Your task to perform on an android device: Show the shopping cart on newegg.com. Search for lenovo thinkpad on newegg.com, select the first entry, add it to the cart, then select checkout. Image 0: 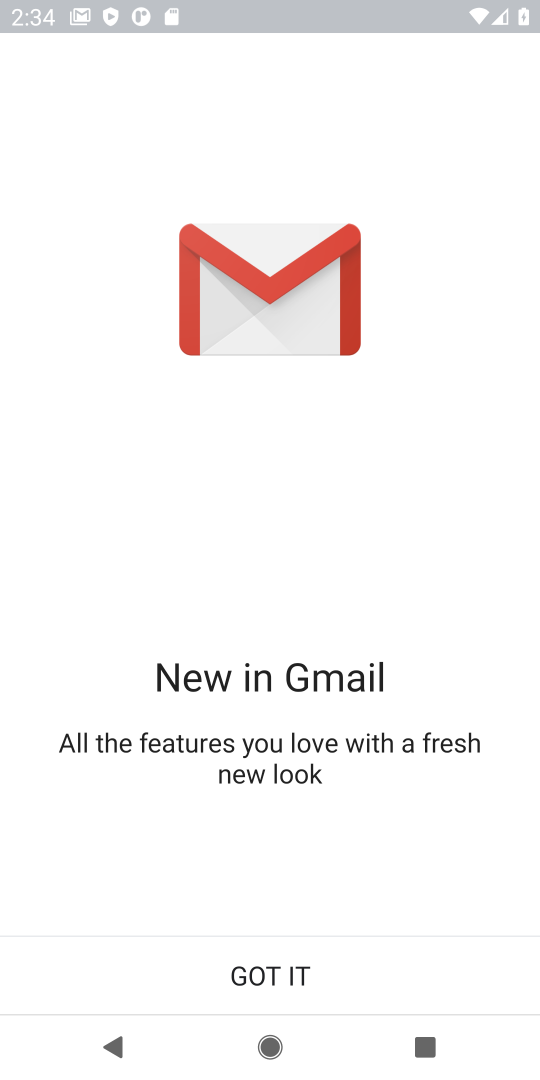
Step 0: press home button
Your task to perform on an android device: Show the shopping cart on newegg.com. Search for lenovo thinkpad on newegg.com, select the first entry, add it to the cart, then select checkout. Image 1: 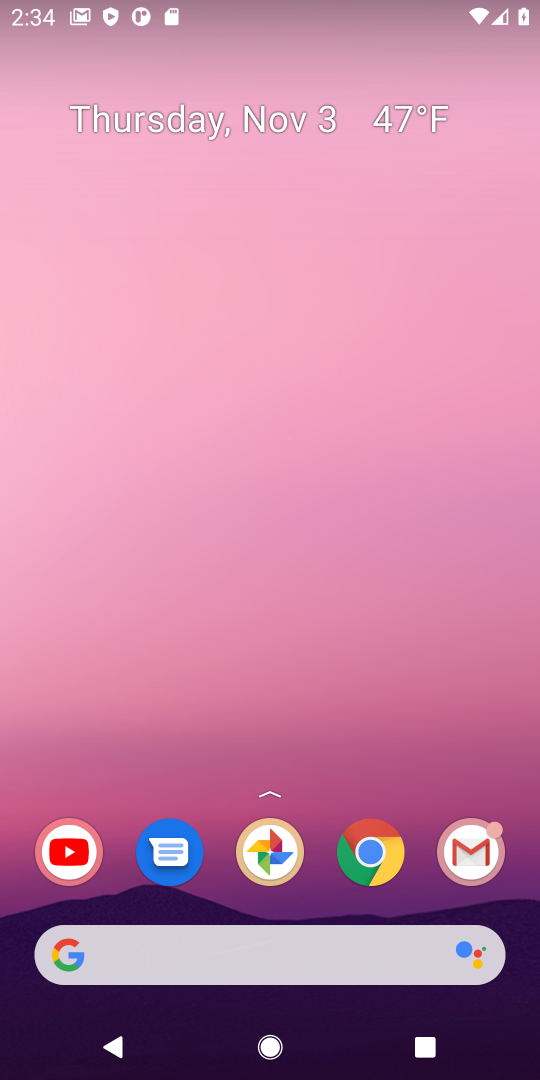
Step 1: click (371, 855)
Your task to perform on an android device: Show the shopping cart on newegg.com. Search for lenovo thinkpad on newegg.com, select the first entry, add it to the cart, then select checkout. Image 2: 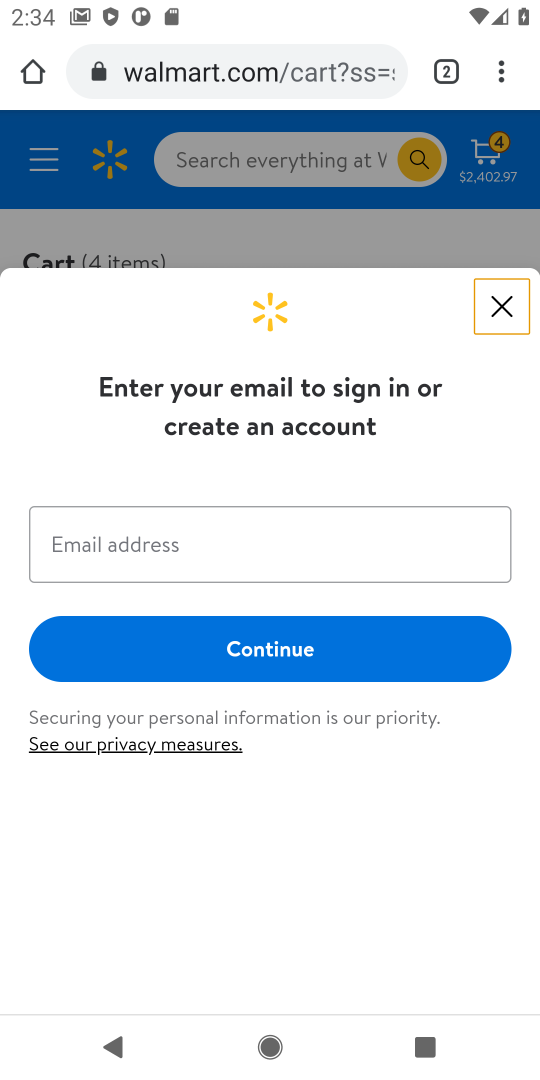
Step 2: click (160, 68)
Your task to perform on an android device: Show the shopping cart on newegg.com. Search for lenovo thinkpad on newegg.com, select the first entry, add it to the cart, then select checkout. Image 3: 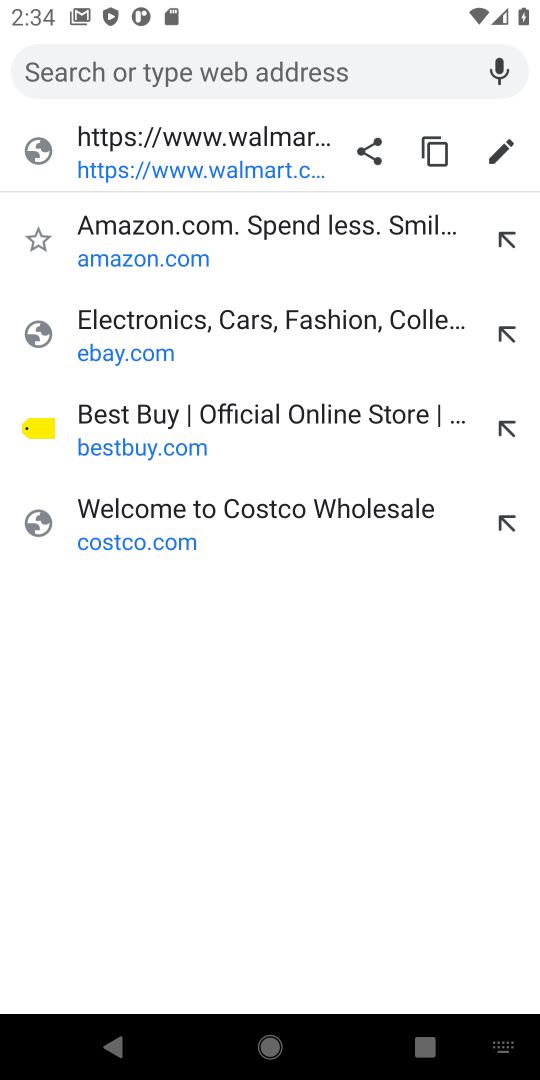
Step 3: type "newegg.com"
Your task to perform on an android device: Show the shopping cart on newegg.com. Search for lenovo thinkpad on newegg.com, select the first entry, add it to the cart, then select checkout. Image 4: 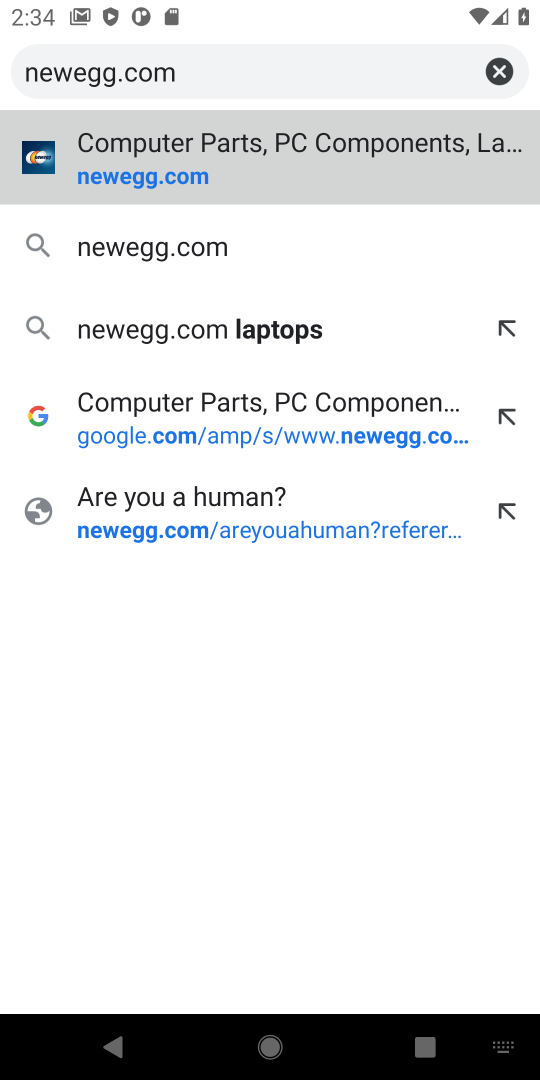
Step 4: click (172, 256)
Your task to perform on an android device: Show the shopping cart on newegg.com. Search for lenovo thinkpad on newegg.com, select the first entry, add it to the cart, then select checkout. Image 5: 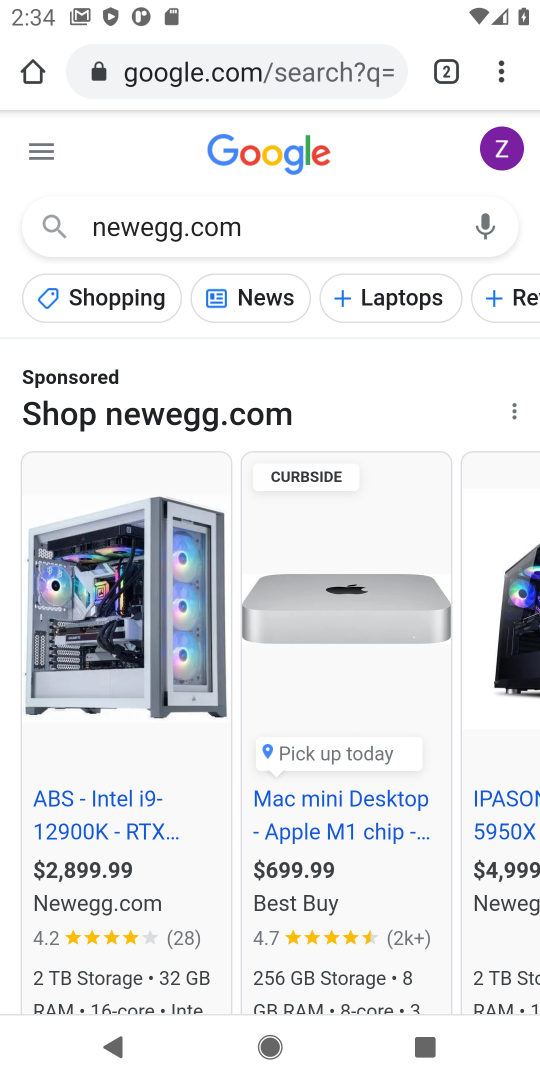
Step 5: drag from (260, 834) to (235, 324)
Your task to perform on an android device: Show the shopping cart on newegg.com. Search for lenovo thinkpad on newegg.com, select the first entry, add it to the cart, then select checkout. Image 6: 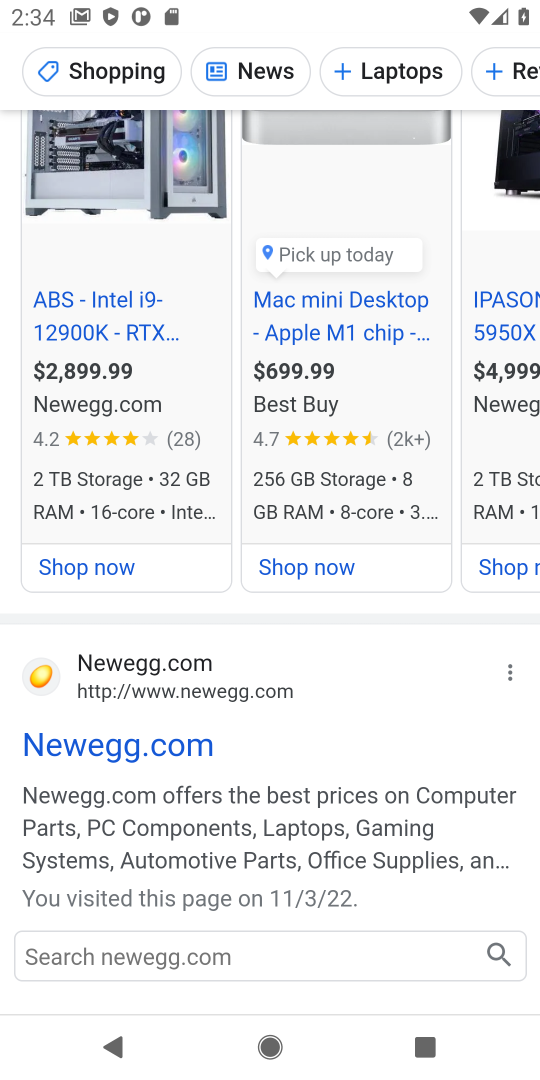
Step 6: click (111, 691)
Your task to perform on an android device: Show the shopping cart on newegg.com. Search for lenovo thinkpad on newegg.com, select the first entry, add it to the cart, then select checkout. Image 7: 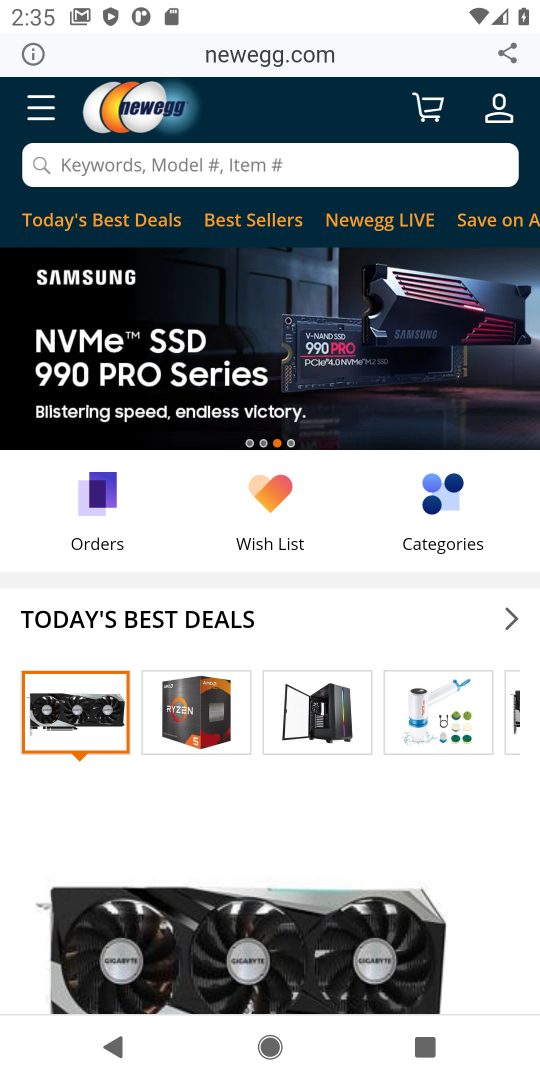
Step 7: click (430, 113)
Your task to perform on an android device: Show the shopping cart on newegg.com. Search for lenovo thinkpad on newegg.com, select the first entry, add it to the cart, then select checkout. Image 8: 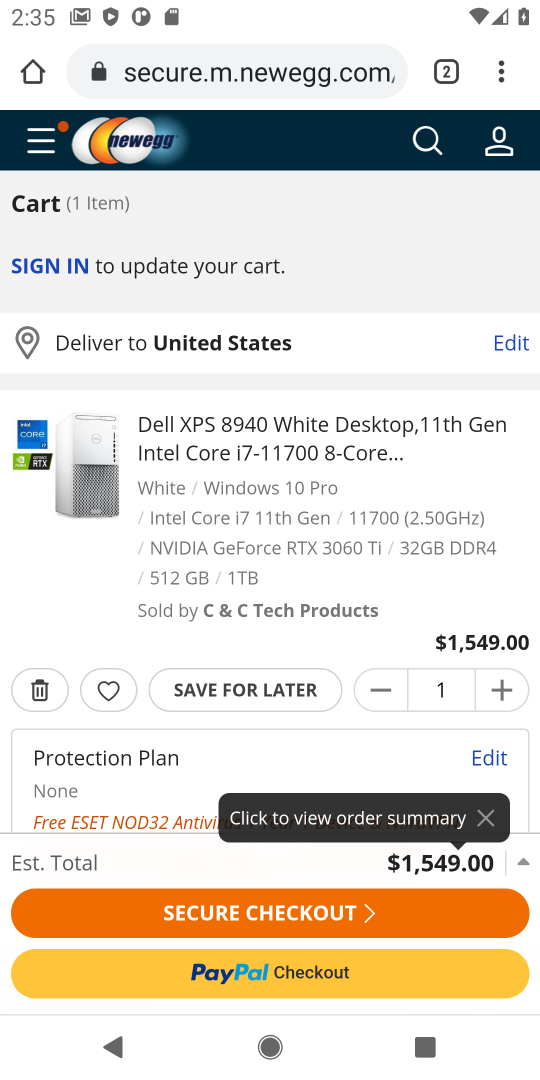
Step 8: click (435, 141)
Your task to perform on an android device: Show the shopping cart on newegg.com. Search for lenovo thinkpad on newegg.com, select the first entry, add it to the cart, then select checkout. Image 9: 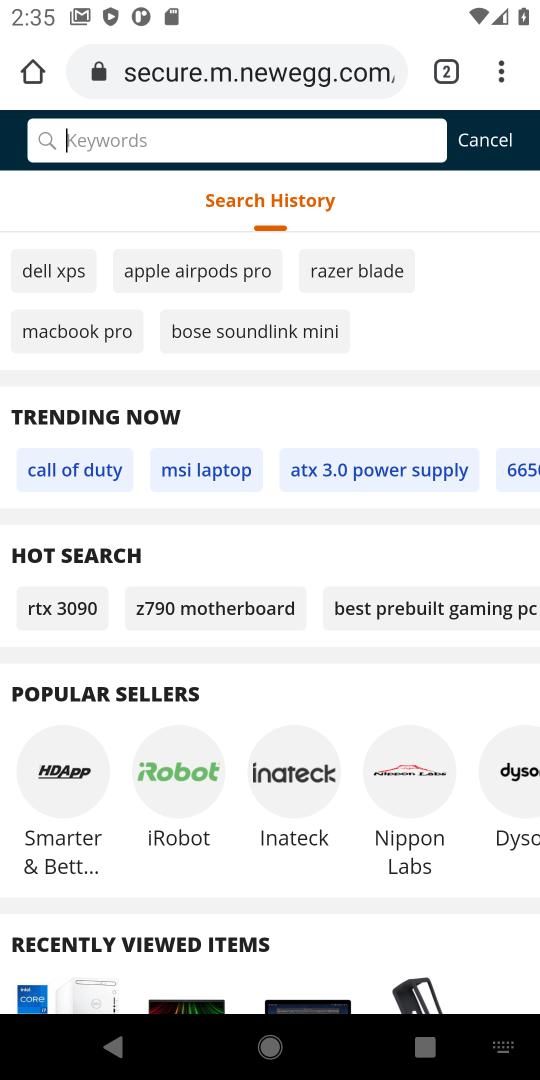
Step 9: type "lenovo thinkpad"
Your task to perform on an android device: Show the shopping cart on newegg.com. Search for lenovo thinkpad on newegg.com, select the first entry, add it to the cart, then select checkout. Image 10: 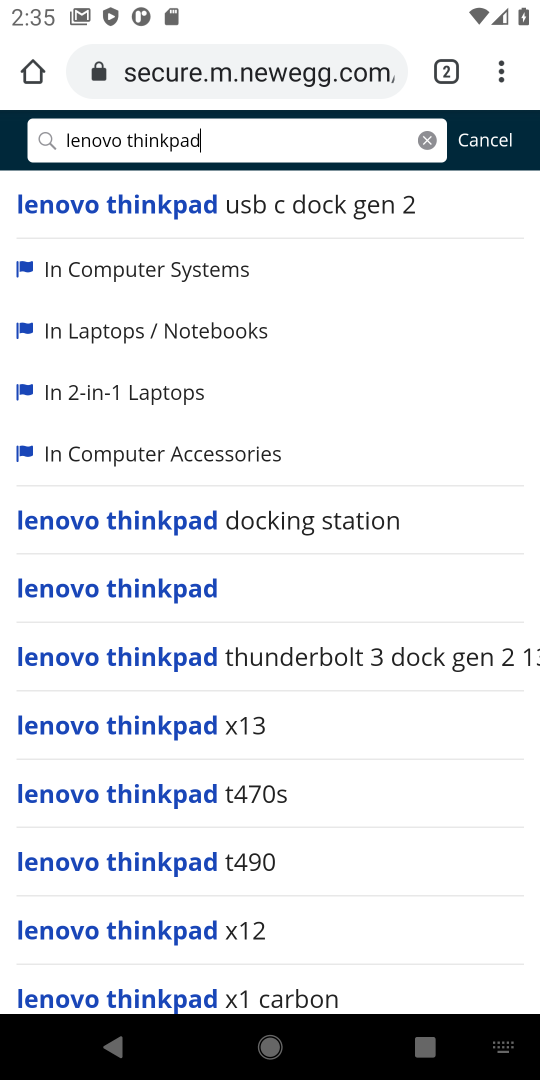
Step 10: click (143, 593)
Your task to perform on an android device: Show the shopping cart on newegg.com. Search for lenovo thinkpad on newegg.com, select the first entry, add it to the cart, then select checkout. Image 11: 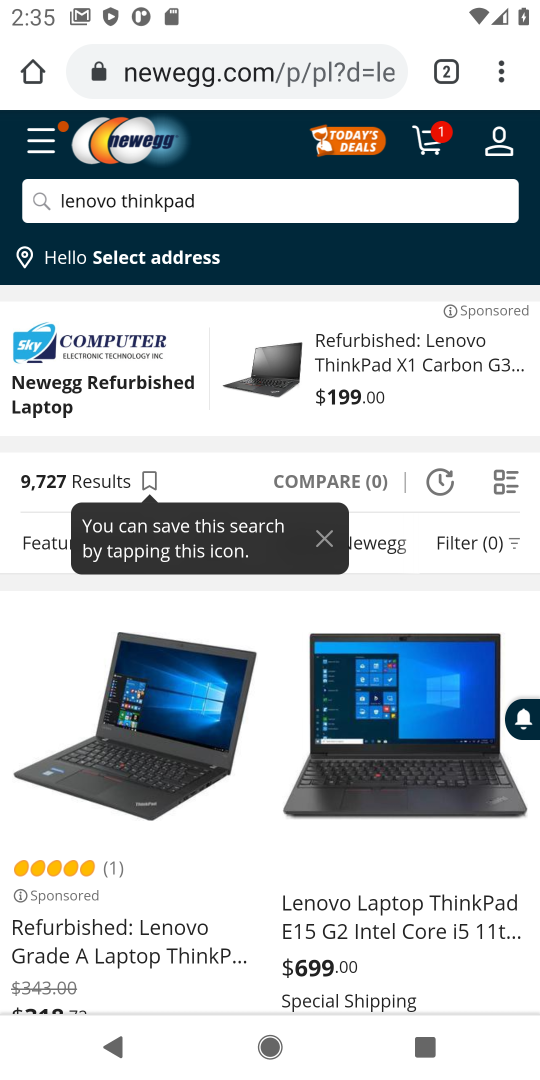
Step 11: drag from (126, 680) to (105, 466)
Your task to perform on an android device: Show the shopping cart on newegg.com. Search for lenovo thinkpad on newegg.com, select the first entry, add it to the cart, then select checkout. Image 12: 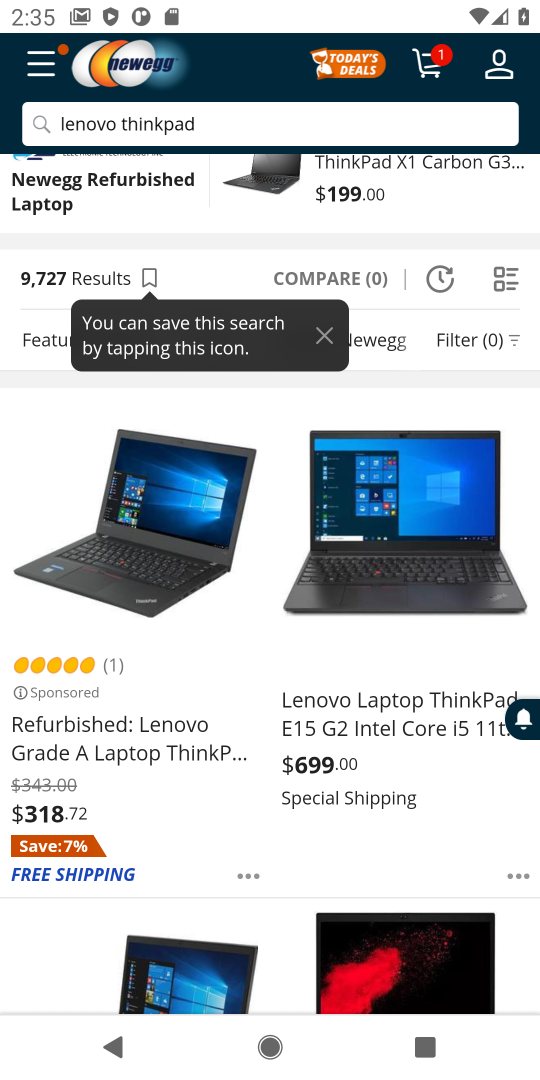
Step 12: click (84, 600)
Your task to perform on an android device: Show the shopping cart on newegg.com. Search for lenovo thinkpad on newegg.com, select the first entry, add it to the cart, then select checkout. Image 13: 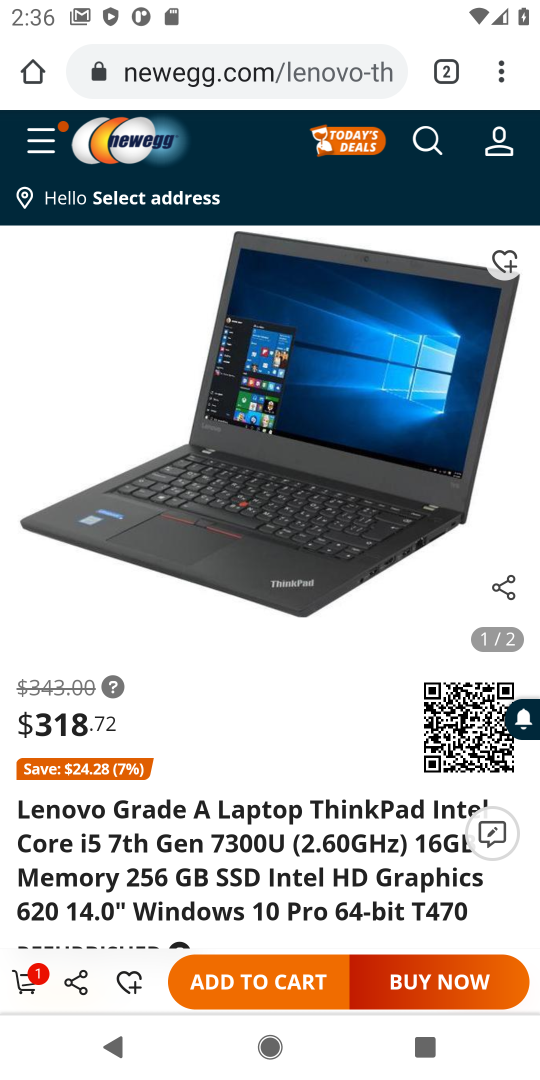
Step 13: click (258, 991)
Your task to perform on an android device: Show the shopping cart on newegg.com. Search for lenovo thinkpad on newegg.com, select the first entry, add it to the cart, then select checkout. Image 14: 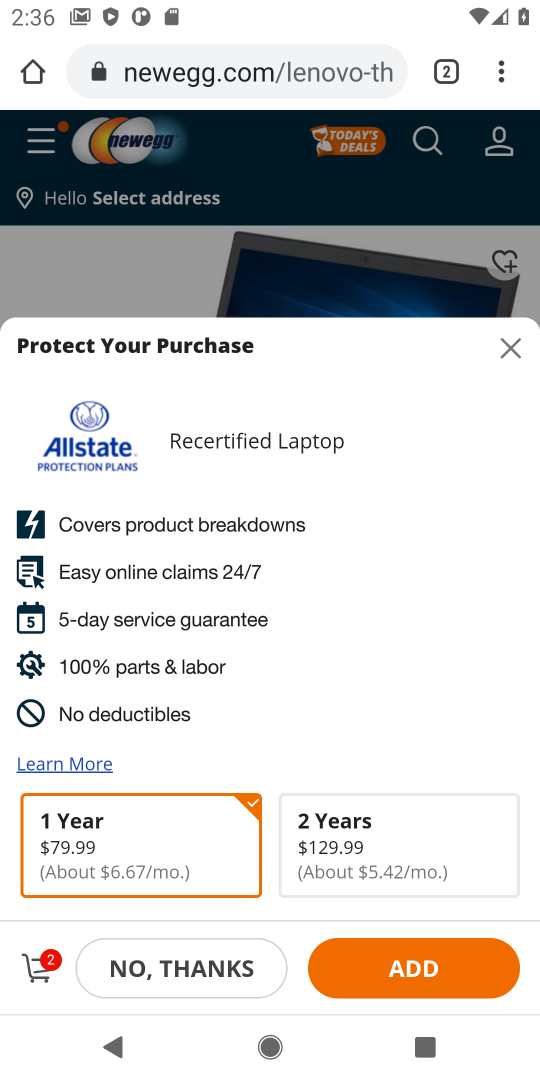
Step 14: click (41, 962)
Your task to perform on an android device: Show the shopping cart on newegg.com. Search for lenovo thinkpad on newegg.com, select the first entry, add it to the cart, then select checkout. Image 15: 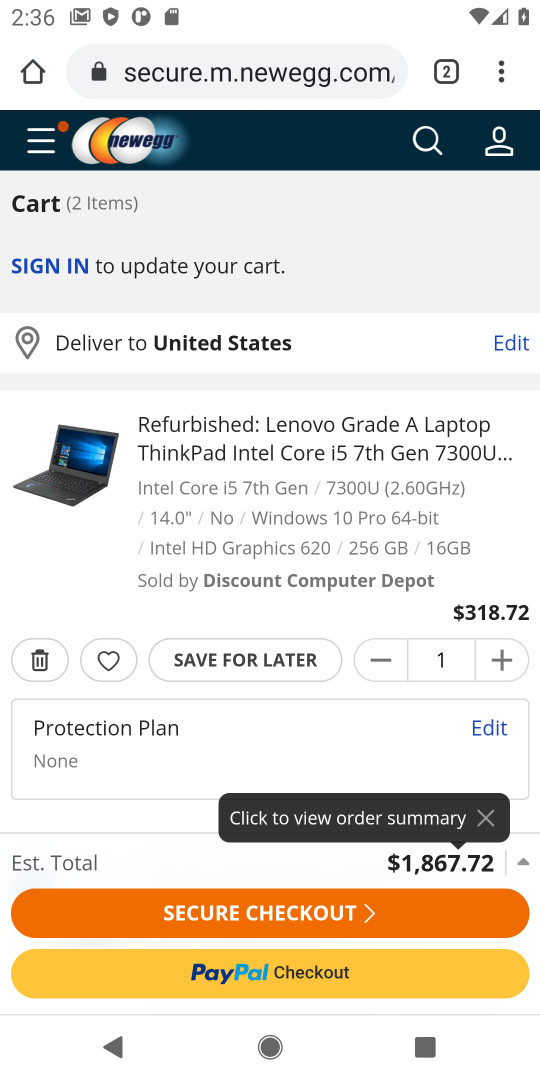
Step 15: click (275, 915)
Your task to perform on an android device: Show the shopping cart on newegg.com. Search for lenovo thinkpad on newegg.com, select the first entry, add it to the cart, then select checkout. Image 16: 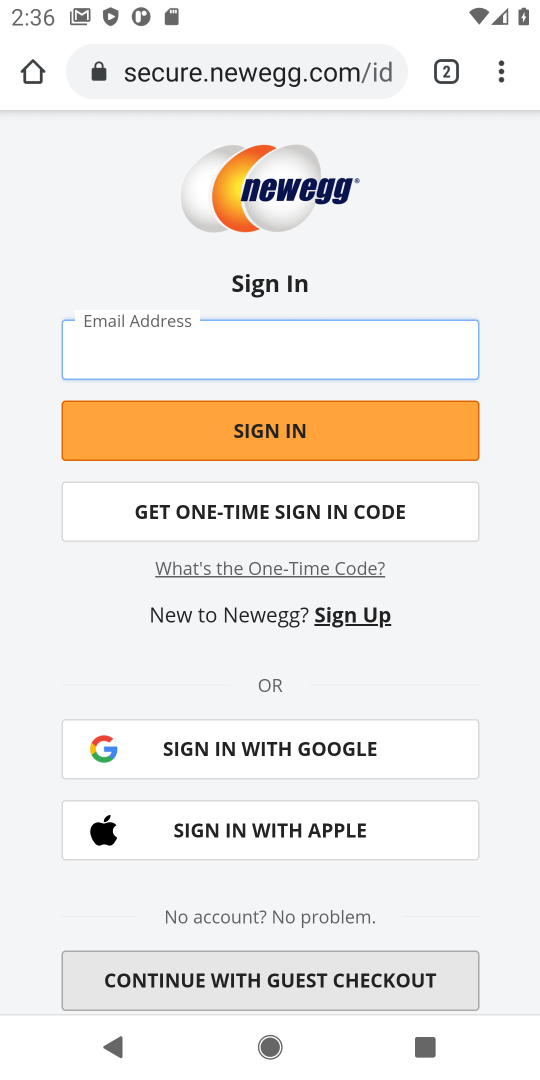
Step 16: task complete